Your task to perform on an android device: Open settings on Google Maps Image 0: 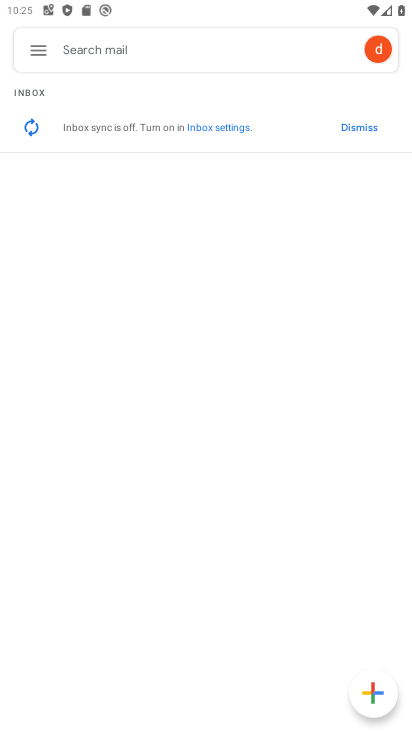
Step 0: press home button
Your task to perform on an android device: Open settings on Google Maps Image 1: 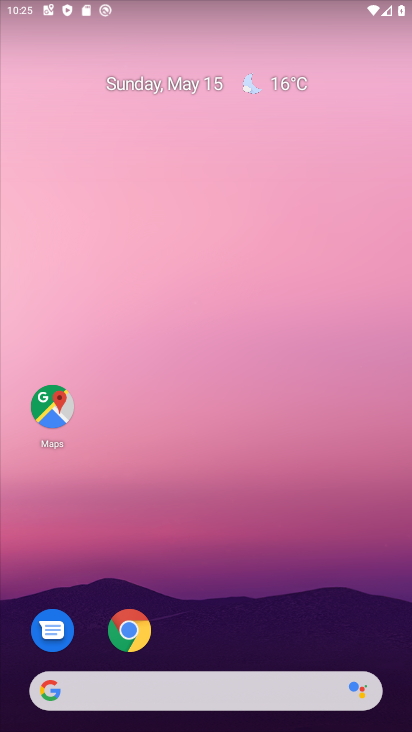
Step 1: click (58, 409)
Your task to perform on an android device: Open settings on Google Maps Image 2: 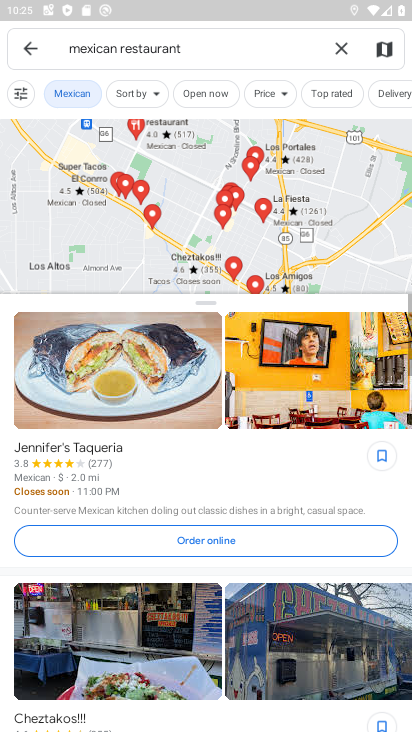
Step 2: click (335, 46)
Your task to perform on an android device: Open settings on Google Maps Image 3: 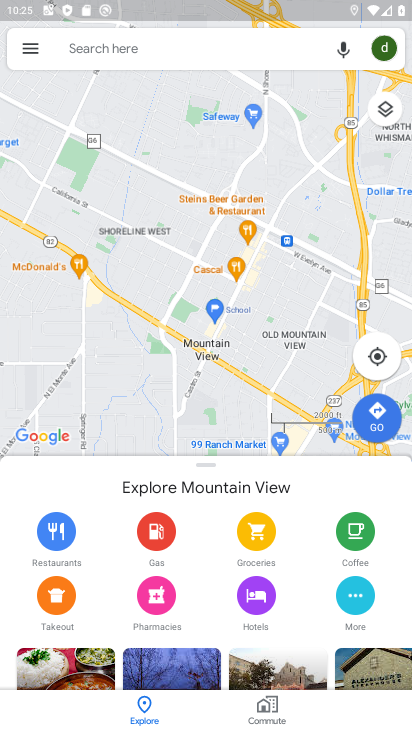
Step 3: click (30, 44)
Your task to perform on an android device: Open settings on Google Maps Image 4: 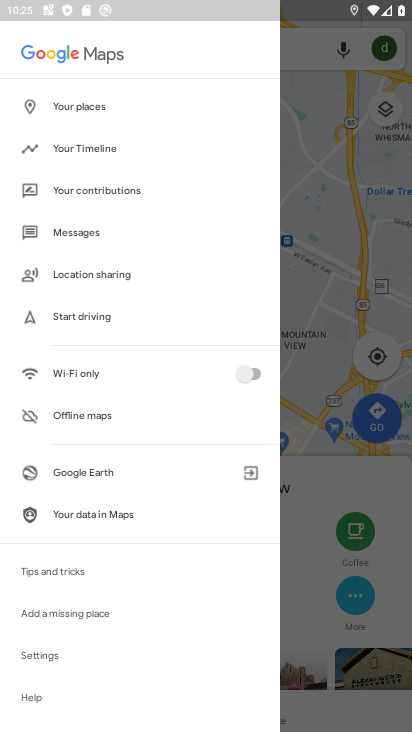
Step 4: click (68, 658)
Your task to perform on an android device: Open settings on Google Maps Image 5: 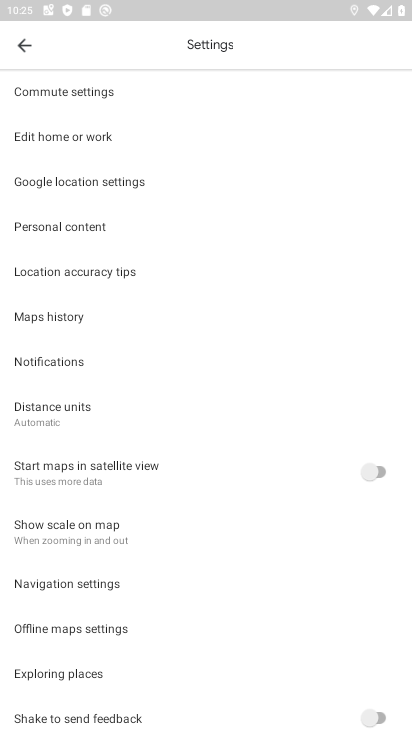
Step 5: task complete